Your task to perform on an android device: Open the map Image 0: 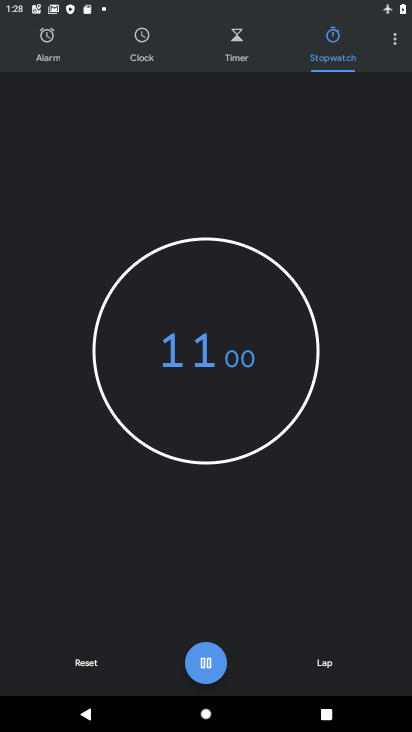
Step 0: press home button
Your task to perform on an android device: Open the map Image 1: 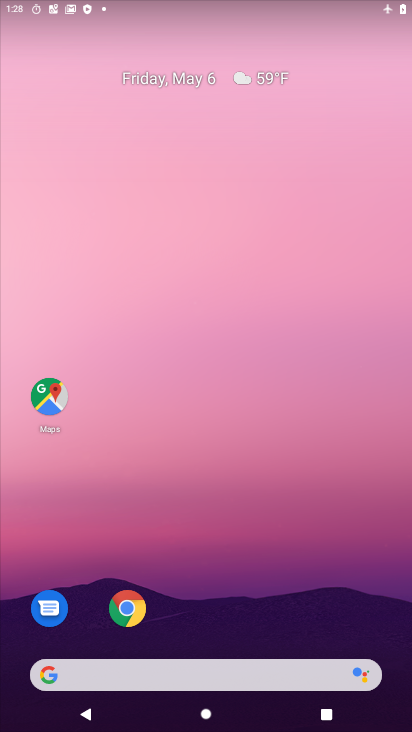
Step 1: click (52, 394)
Your task to perform on an android device: Open the map Image 2: 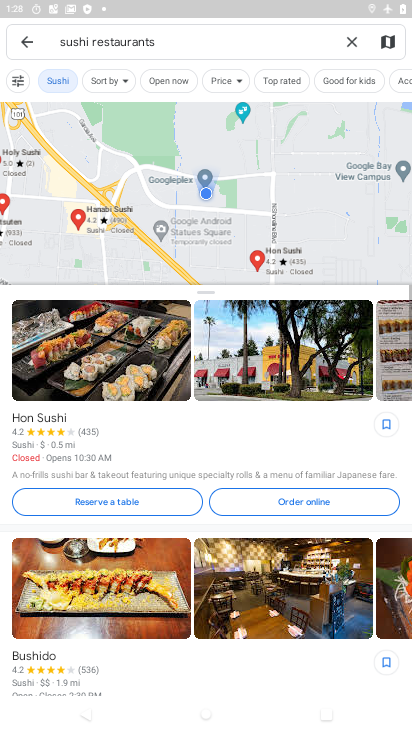
Step 2: task complete